Your task to perform on an android device: turn off notifications settings in the gmail app Image 0: 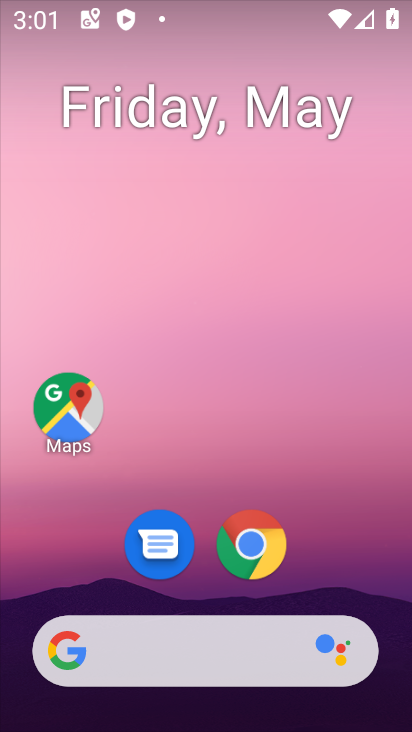
Step 0: drag from (189, 584) to (196, 112)
Your task to perform on an android device: turn off notifications settings in the gmail app Image 1: 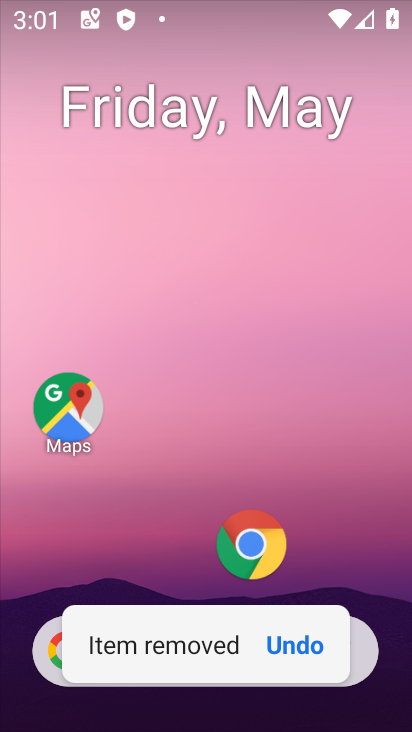
Step 1: drag from (194, 568) to (248, 169)
Your task to perform on an android device: turn off notifications settings in the gmail app Image 2: 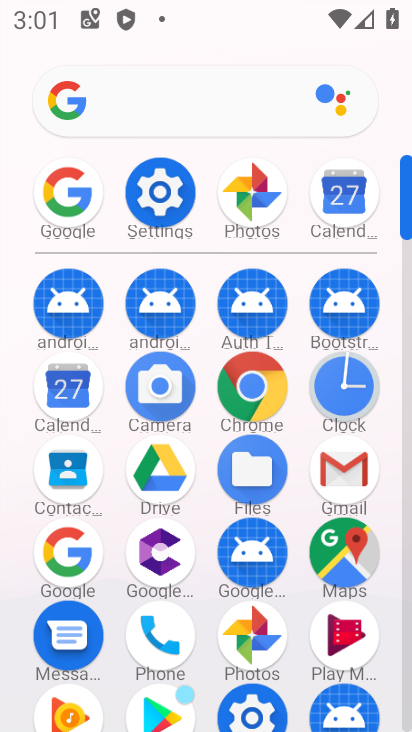
Step 2: drag from (183, 583) to (223, 277)
Your task to perform on an android device: turn off notifications settings in the gmail app Image 3: 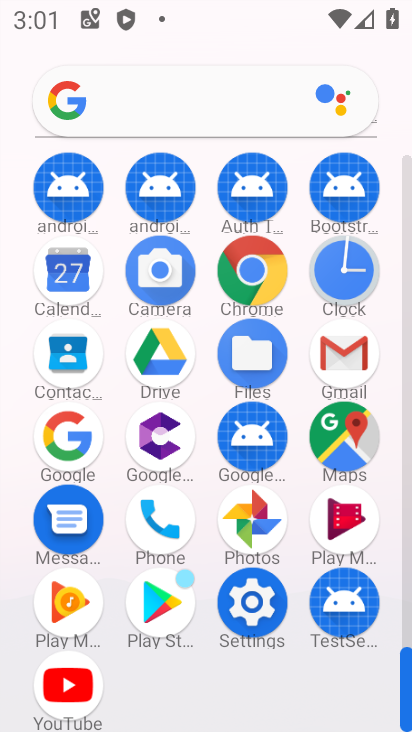
Step 3: click (332, 355)
Your task to perform on an android device: turn off notifications settings in the gmail app Image 4: 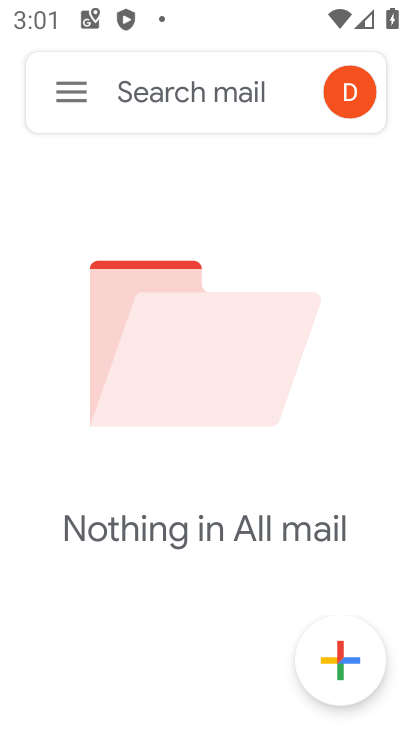
Step 4: click (80, 95)
Your task to perform on an android device: turn off notifications settings in the gmail app Image 5: 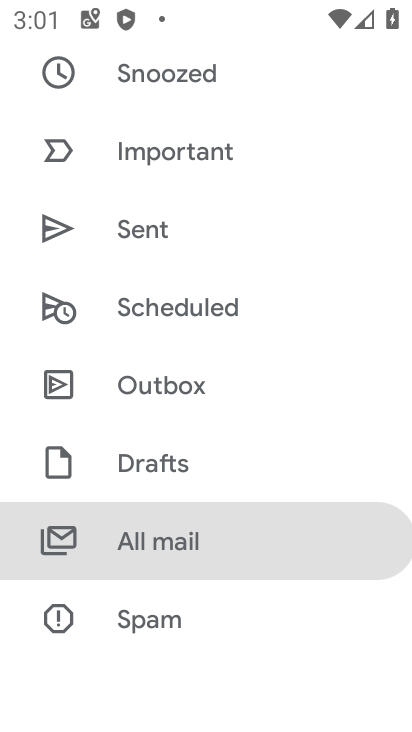
Step 5: drag from (130, 618) to (146, 308)
Your task to perform on an android device: turn off notifications settings in the gmail app Image 6: 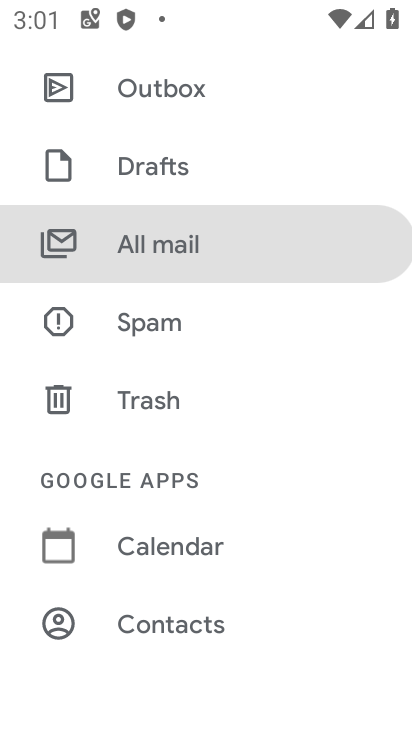
Step 6: drag from (164, 564) to (185, 291)
Your task to perform on an android device: turn off notifications settings in the gmail app Image 7: 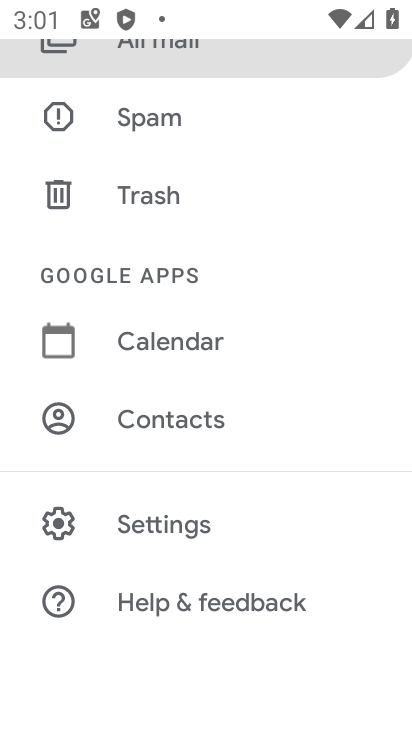
Step 7: click (191, 514)
Your task to perform on an android device: turn off notifications settings in the gmail app Image 8: 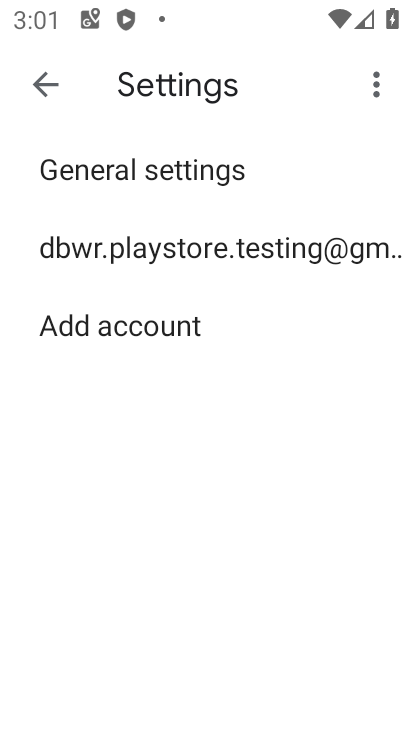
Step 8: click (259, 240)
Your task to perform on an android device: turn off notifications settings in the gmail app Image 9: 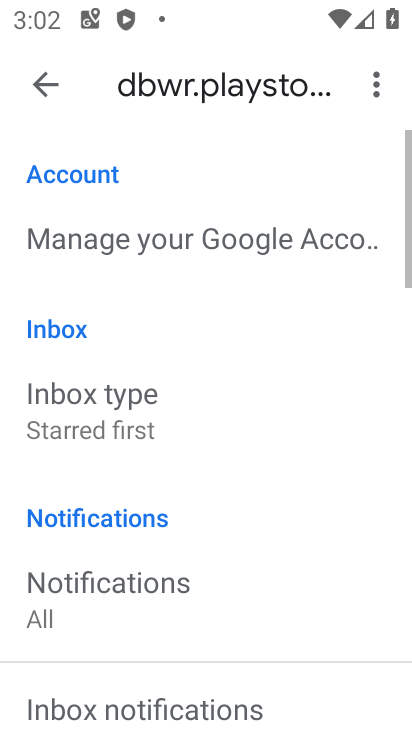
Step 9: drag from (282, 581) to (289, 373)
Your task to perform on an android device: turn off notifications settings in the gmail app Image 10: 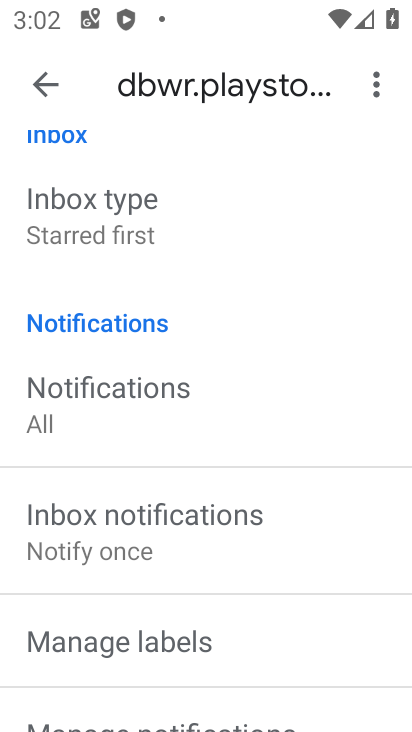
Step 10: drag from (166, 608) to (196, 348)
Your task to perform on an android device: turn off notifications settings in the gmail app Image 11: 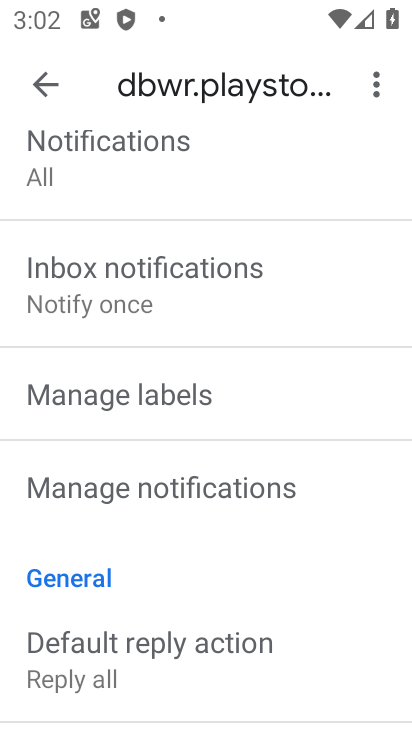
Step 11: click (184, 504)
Your task to perform on an android device: turn off notifications settings in the gmail app Image 12: 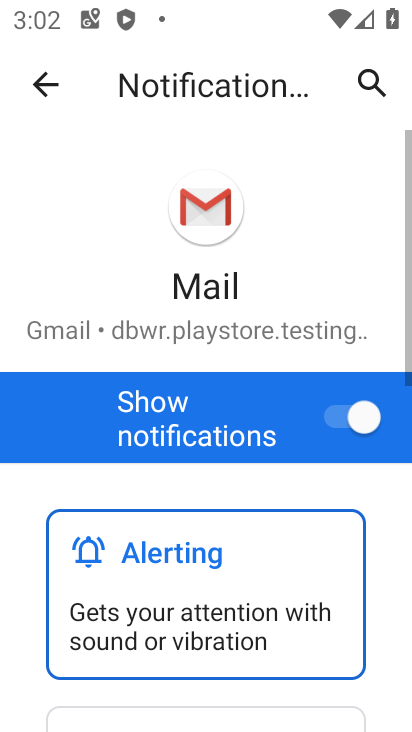
Step 12: click (331, 411)
Your task to perform on an android device: turn off notifications settings in the gmail app Image 13: 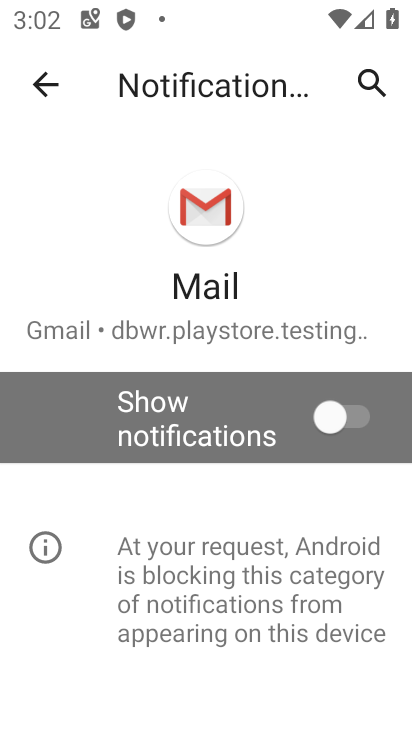
Step 13: task complete